Your task to perform on an android device: Find coffee shops on Maps Image 0: 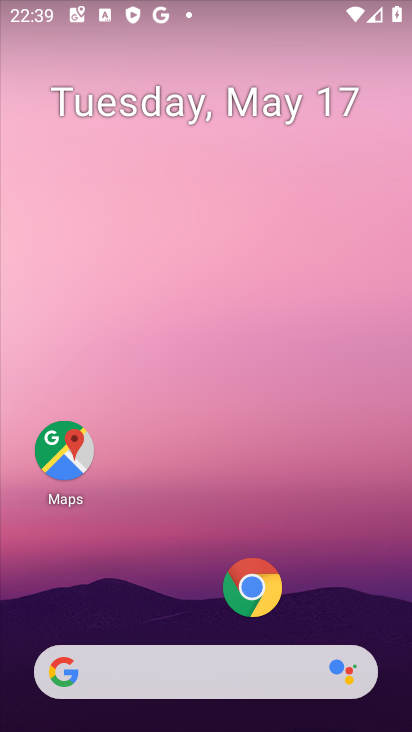
Step 0: drag from (207, 643) to (226, 243)
Your task to perform on an android device: Find coffee shops on Maps Image 1: 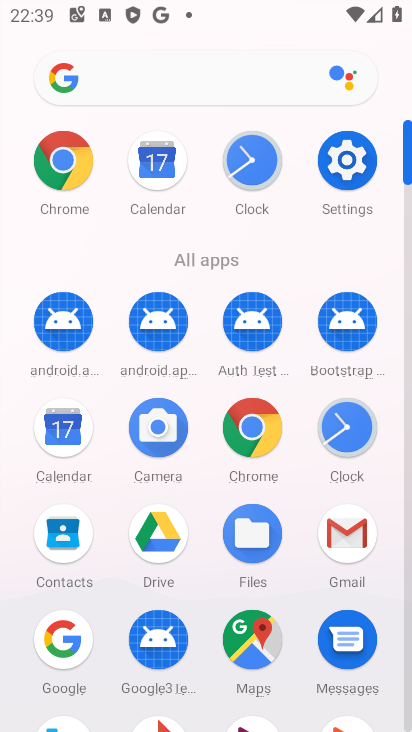
Step 1: click (245, 657)
Your task to perform on an android device: Find coffee shops on Maps Image 2: 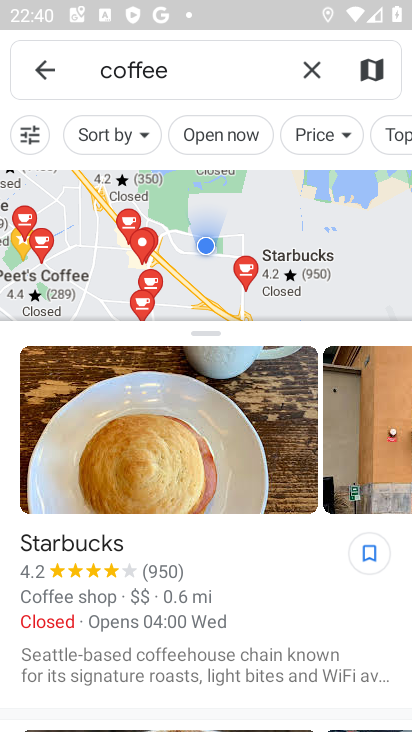
Step 2: click (297, 82)
Your task to perform on an android device: Find coffee shops on Maps Image 3: 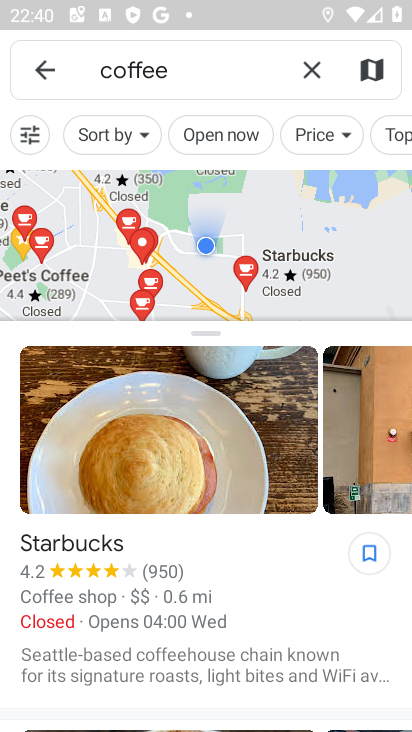
Step 3: click (189, 78)
Your task to perform on an android device: Find coffee shops on Maps Image 4: 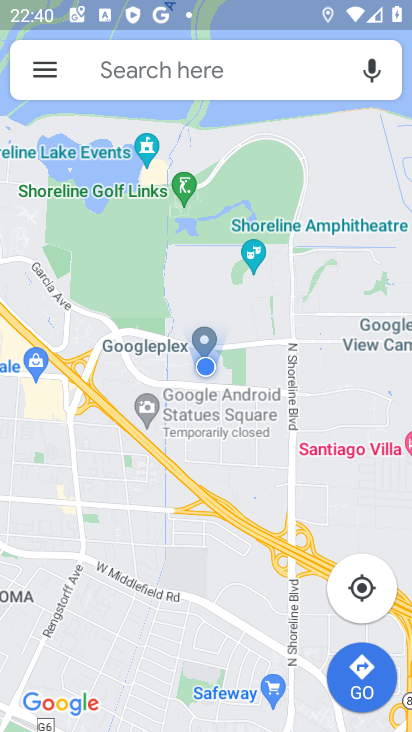
Step 4: click (180, 73)
Your task to perform on an android device: Find coffee shops on Maps Image 5: 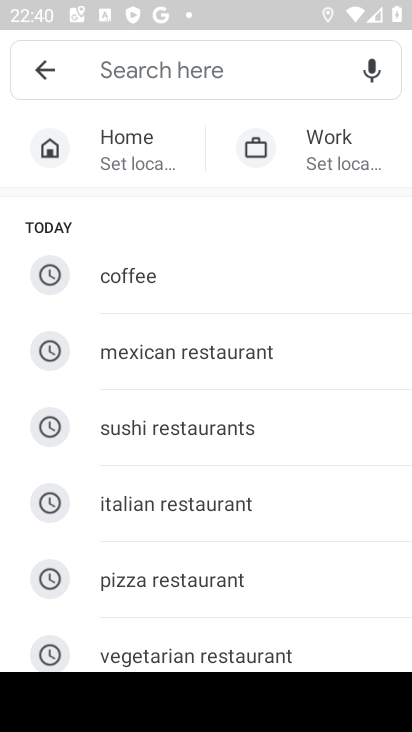
Step 5: drag from (247, 525) to (137, 77)
Your task to perform on an android device: Find coffee shops on Maps Image 6: 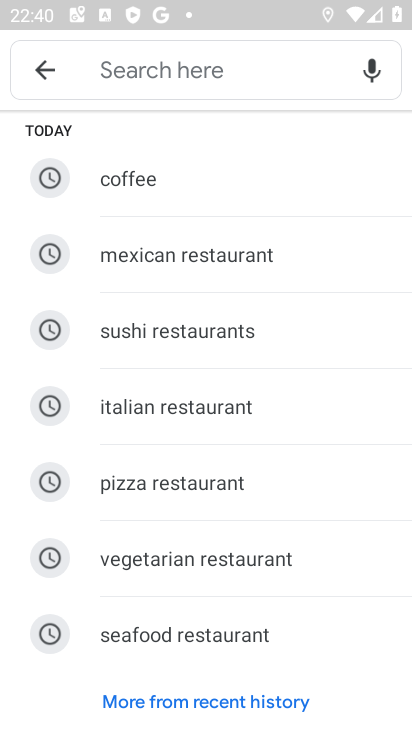
Step 6: click (100, 74)
Your task to perform on an android device: Find coffee shops on Maps Image 7: 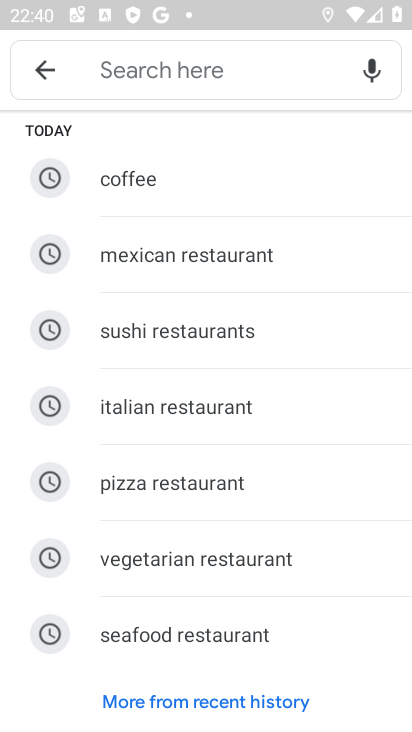
Step 7: click (140, 74)
Your task to perform on an android device: Find coffee shops on Maps Image 8: 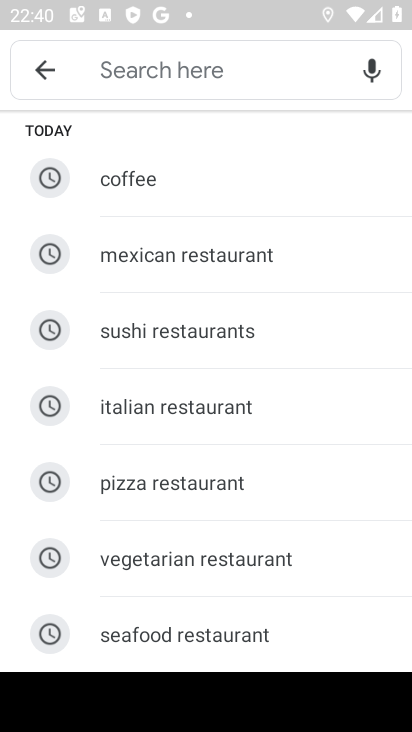
Step 8: type "coffee shops "
Your task to perform on an android device: Find coffee shops on Maps Image 9: 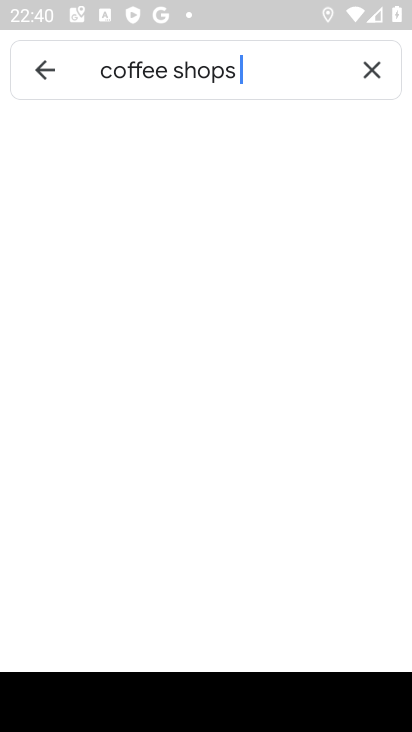
Step 9: type ""
Your task to perform on an android device: Find coffee shops on Maps Image 10: 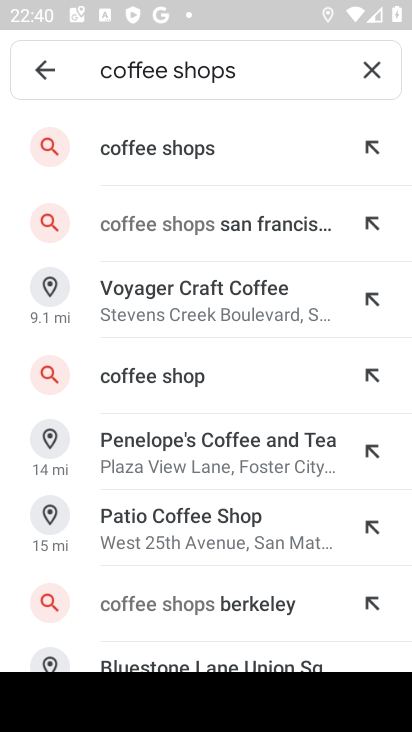
Step 10: click (237, 150)
Your task to perform on an android device: Find coffee shops on Maps Image 11: 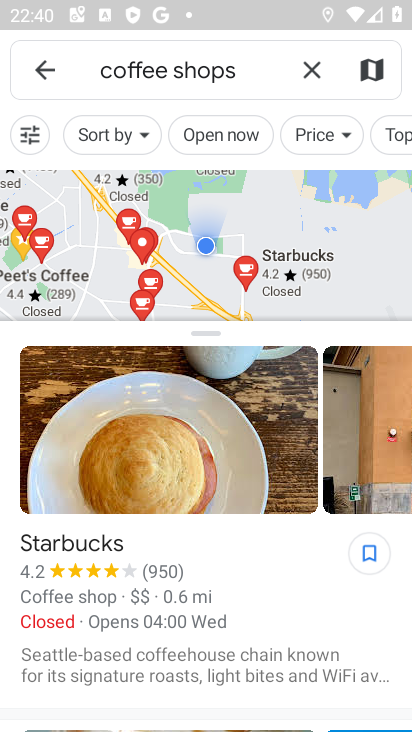
Step 11: task complete